Your task to perform on an android device: Show me popular games on the Play Store Image 0: 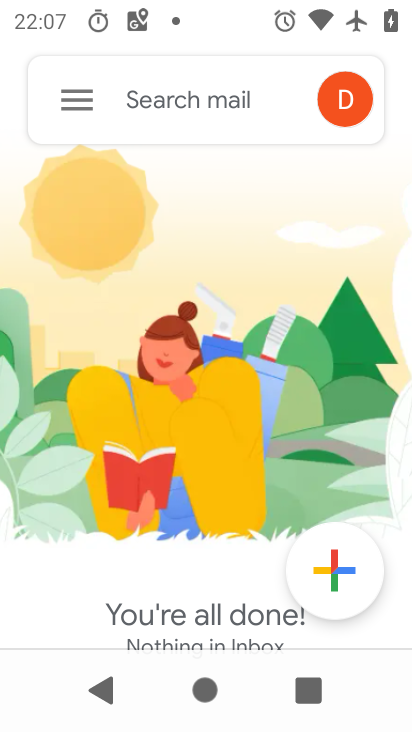
Step 0: press home button
Your task to perform on an android device: Show me popular games on the Play Store Image 1: 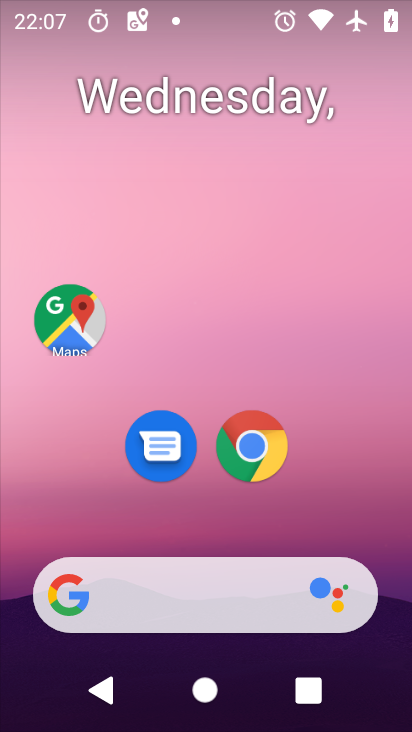
Step 1: drag from (176, 590) to (350, 189)
Your task to perform on an android device: Show me popular games on the Play Store Image 2: 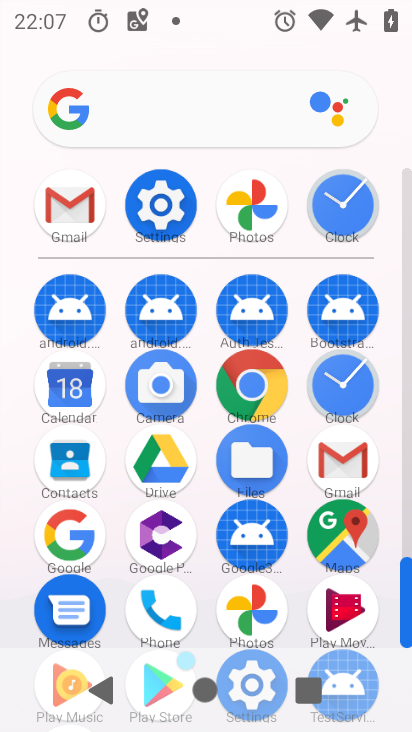
Step 2: drag from (202, 611) to (391, 109)
Your task to perform on an android device: Show me popular games on the Play Store Image 3: 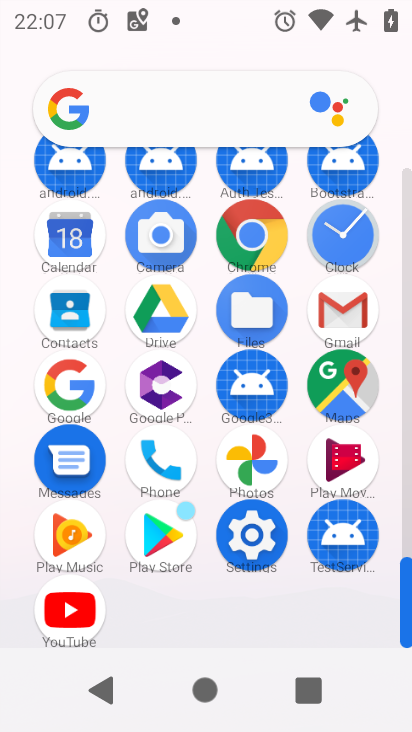
Step 3: click (157, 547)
Your task to perform on an android device: Show me popular games on the Play Store Image 4: 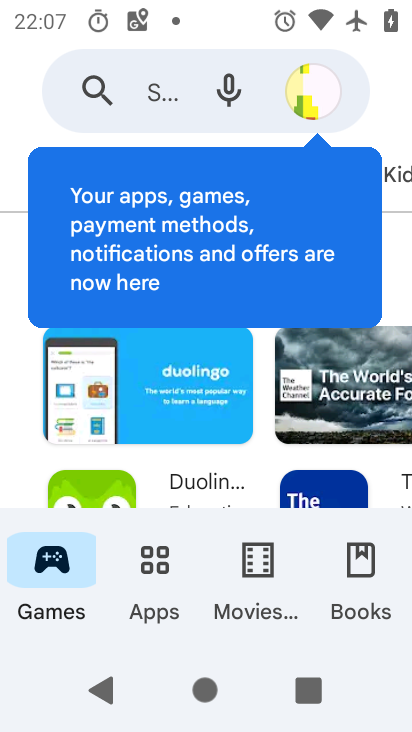
Step 4: drag from (155, 480) to (316, 72)
Your task to perform on an android device: Show me popular games on the Play Store Image 5: 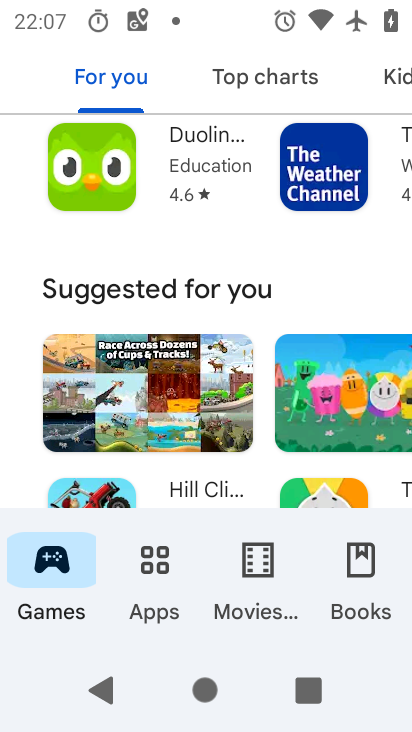
Step 5: drag from (187, 436) to (353, 110)
Your task to perform on an android device: Show me popular games on the Play Store Image 6: 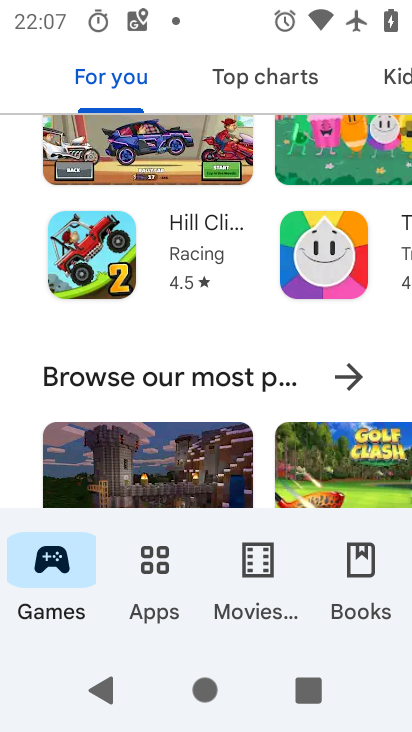
Step 6: click (181, 379)
Your task to perform on an android device: Show me popular games on the Play Store Image 7: 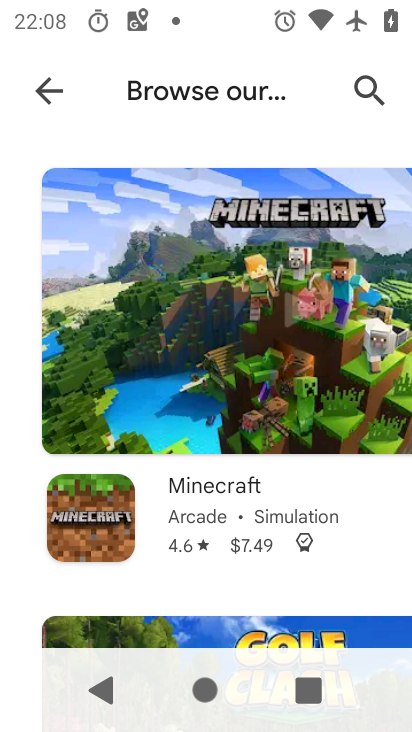
Step 7: task complete